Your task to perform on an android device: turn on improve location accuracy Image 0: 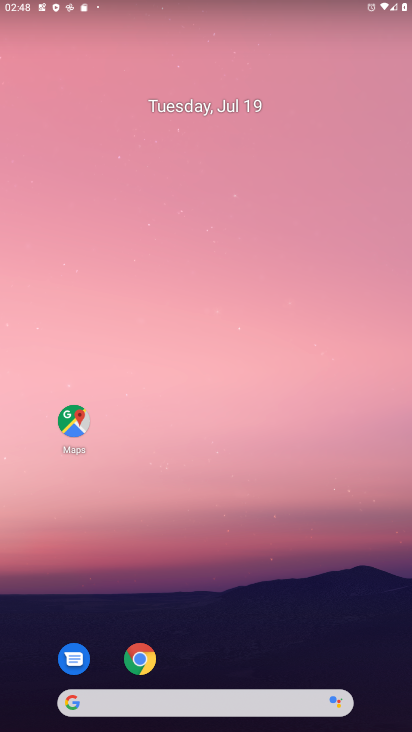
Step 0: press home button
Your task to perform on an android device: turn on improve location accuracy Image 1: 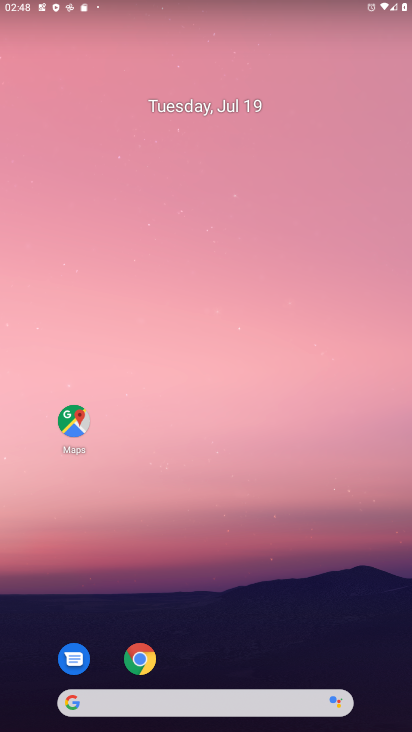
Step 1: drag from (271, 633) to (231, 3)
Your task to perform on an android device: turn on improve location accuracy Image 2: 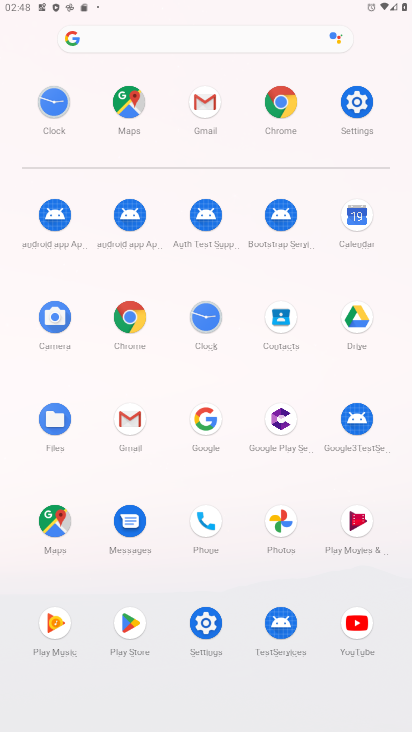
Step 2: click (361, 116)
Your task to perform on an android device: turn on improve location accuracy Image 3: 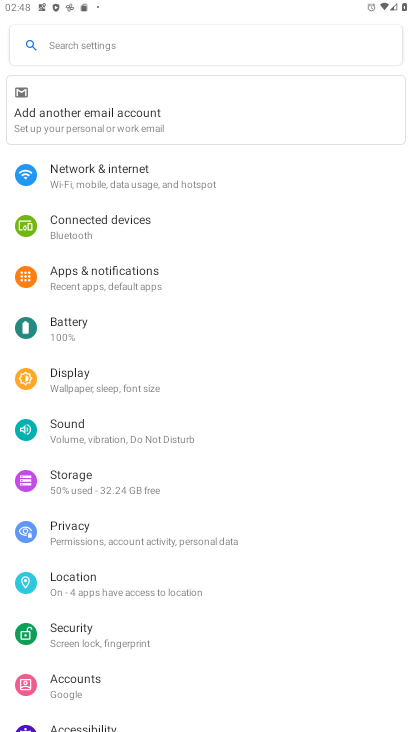
Step 3: click (122, 588)
Your task to perform on an android device: turn on improve location accuracy Image 4: 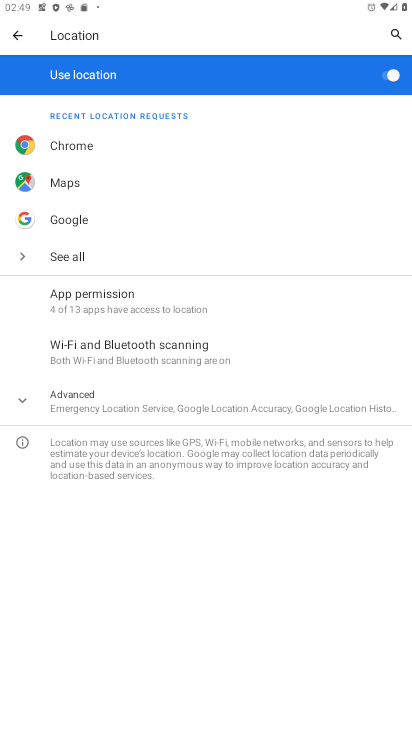
Step 4: click (83, 402)
Your task to perform on an android device: turn on improve location accuracy Image 5: 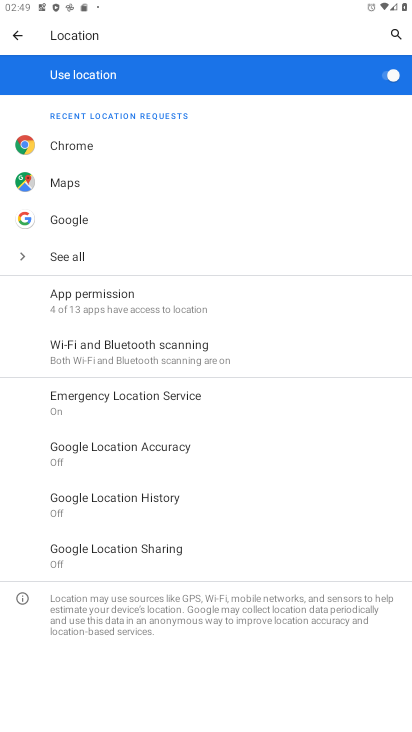
Step 5: click (160, 440)
Your task to perform on an android device: turn on improve location accuracy Image 6: 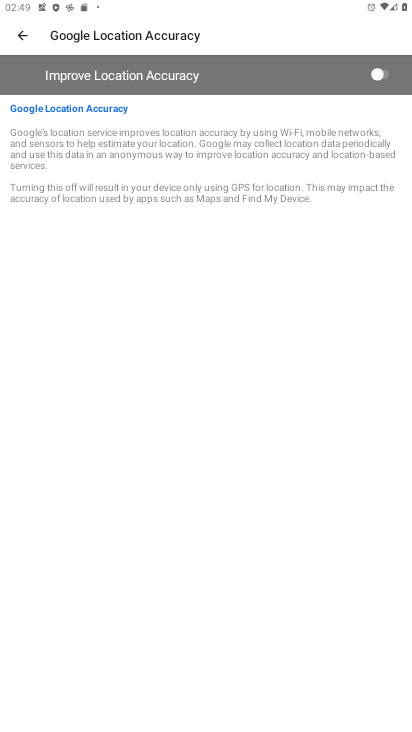
Step 6: click (317, 78)
Your task to perform on an android device: turn on improve location accuracy Image 7: 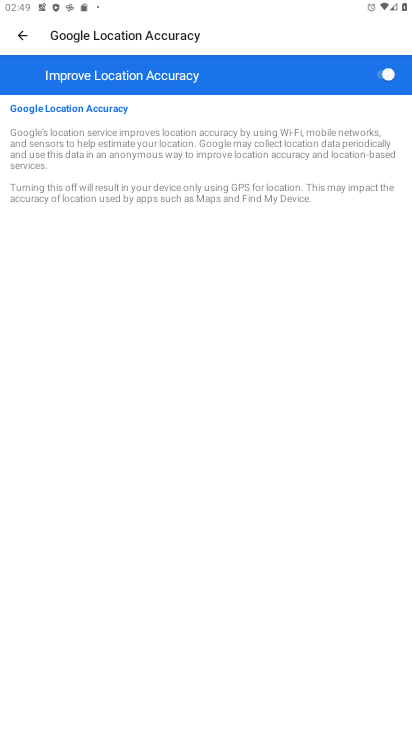
Step 7: task complete